Your task to perform on an android device: change alarm snooze length Image 0: 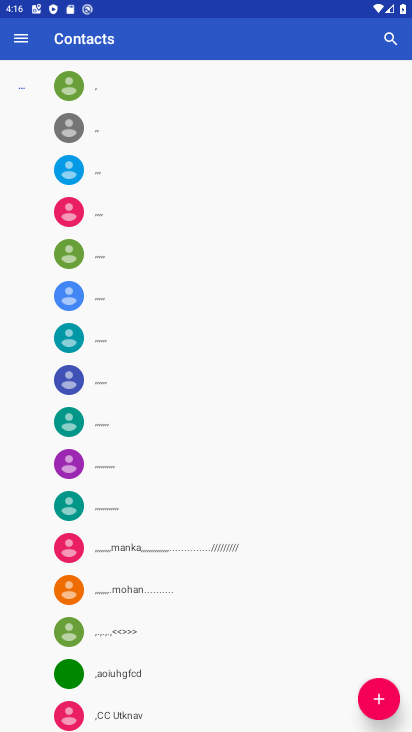
Step 0: press home button
Your task to perform on an android device: change alarm snooze length Image 1: 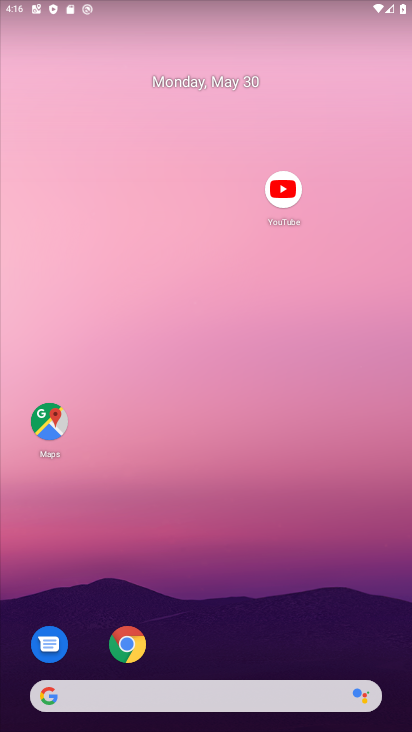
Step 1: drag from (222, 657) to (224, 191)
Your task to perform on an android device: change alarm snooze length Image 2: 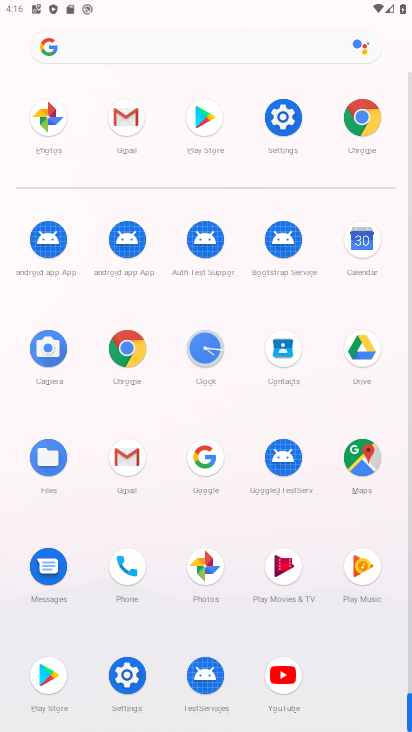
Step 2: click (208, 352)
Your task to perform on an android device: change alarm snooze length Image 3: 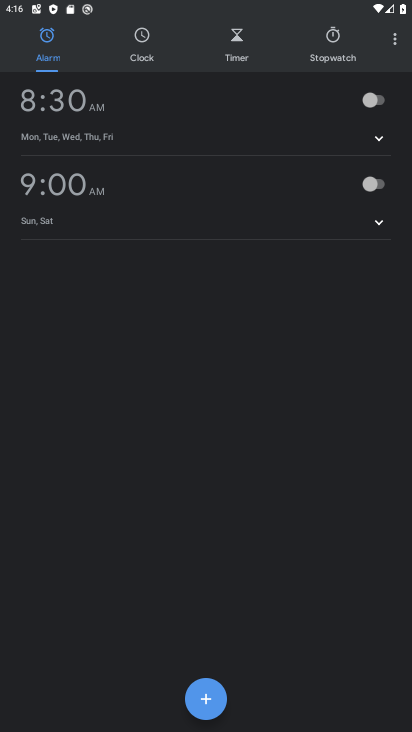
Step 3: click (391, 28)
Your task to perform on an android device: change alarm snooze length Image 4: 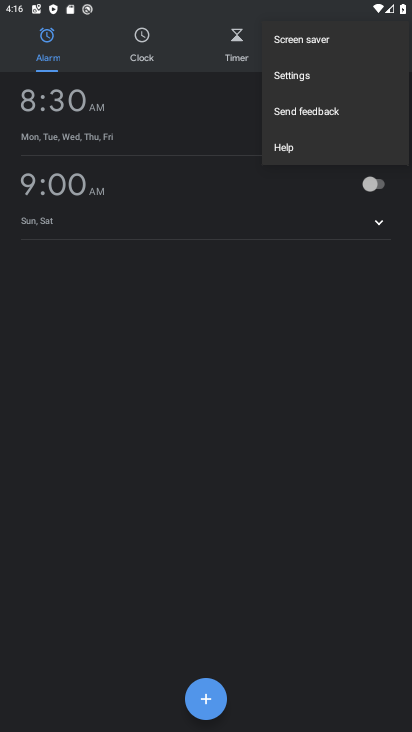
Step 4: click (283, 90)
Your task to perform on an android device: change alarm snooze length Image 5: 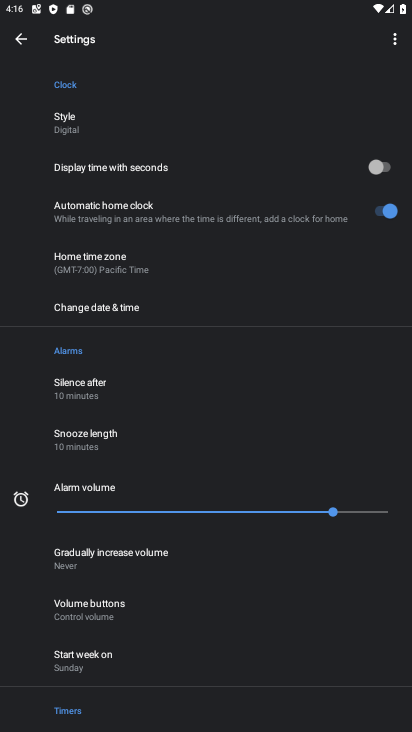
Step 5: click (124, 439)
Your task to perform on an android device: change alarm snooze length Image 6: 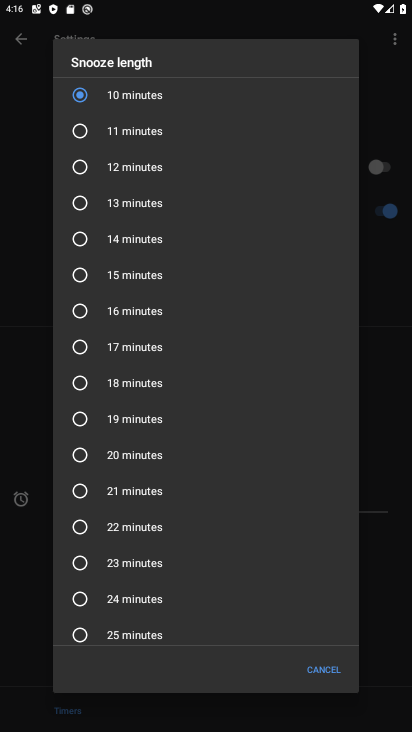
Step 6: click (121, 630)
Your task to perform on an android device: change alarm snooze length Image 7: 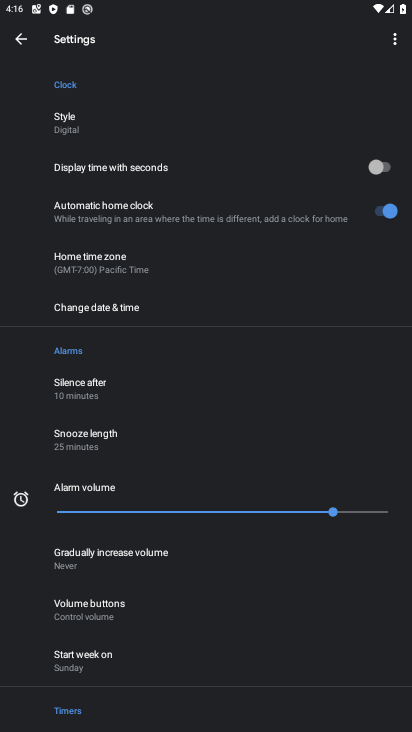
Step 7: task complete